Your task to perform on an android device: Open my contact list Image 0: 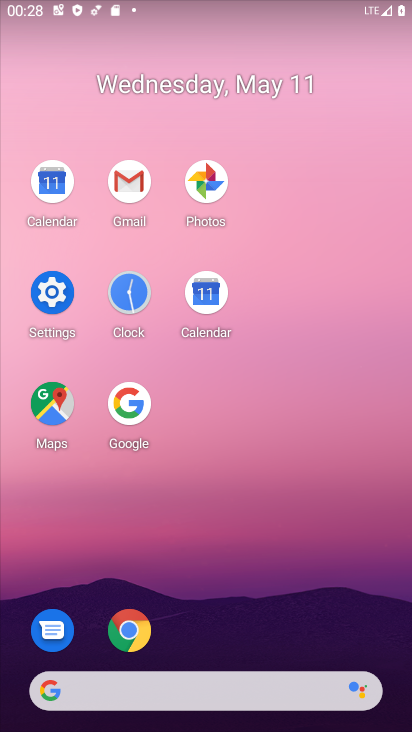
Step 0: drag from (283, 637) to (330, 149)
Your task to perform on an android device: Open my contact list Image 1: 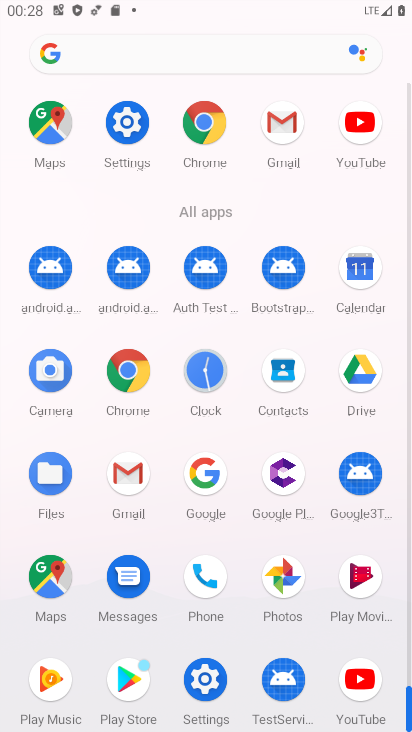
Step 1: click (286, 375)
Your task to perform on an android device: Open my contact list Image 2: 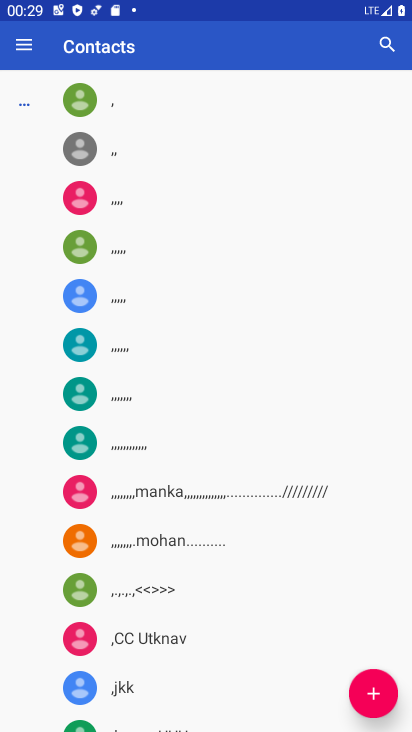
Step 2: task complete